Your task to perform on an android device: What is the news today? Image 0: 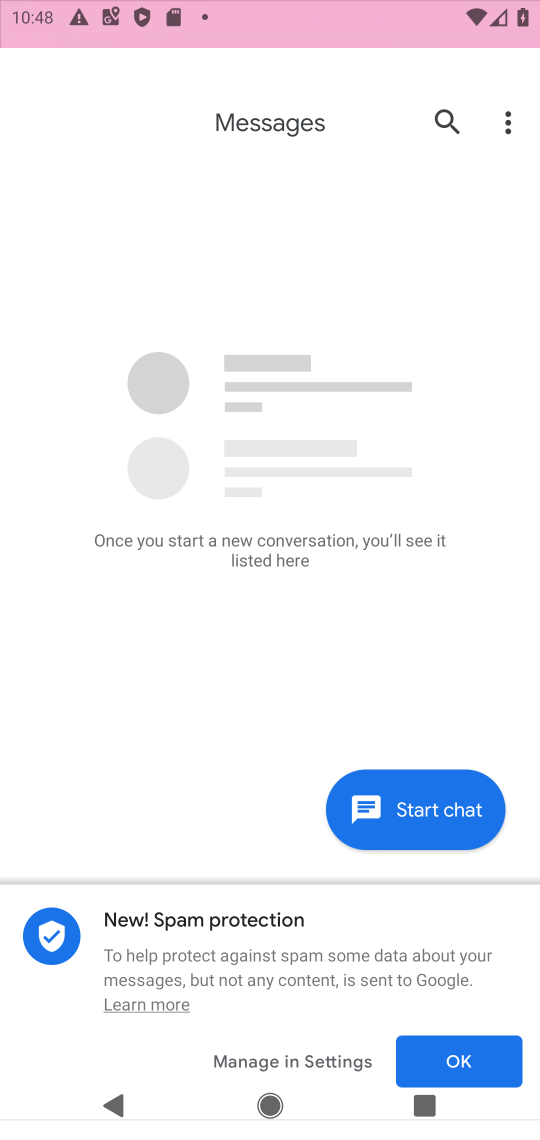
Step 0: press home button
Your task to perform on an android device: What is the news today? Image 1: 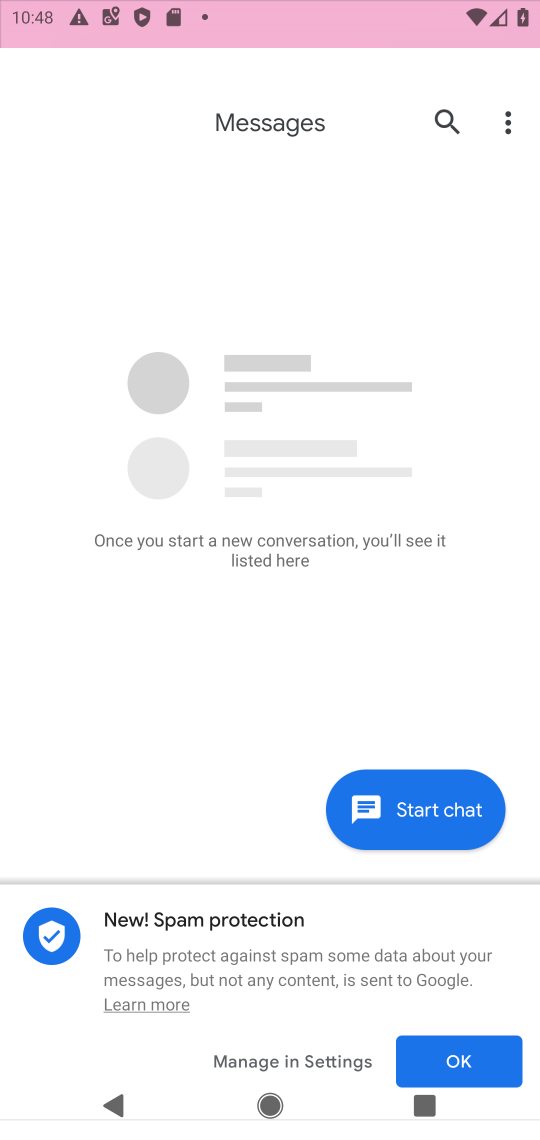
Step 1: click (388, 228)
Your task to perform on an android device: What is the news today? Image 2: 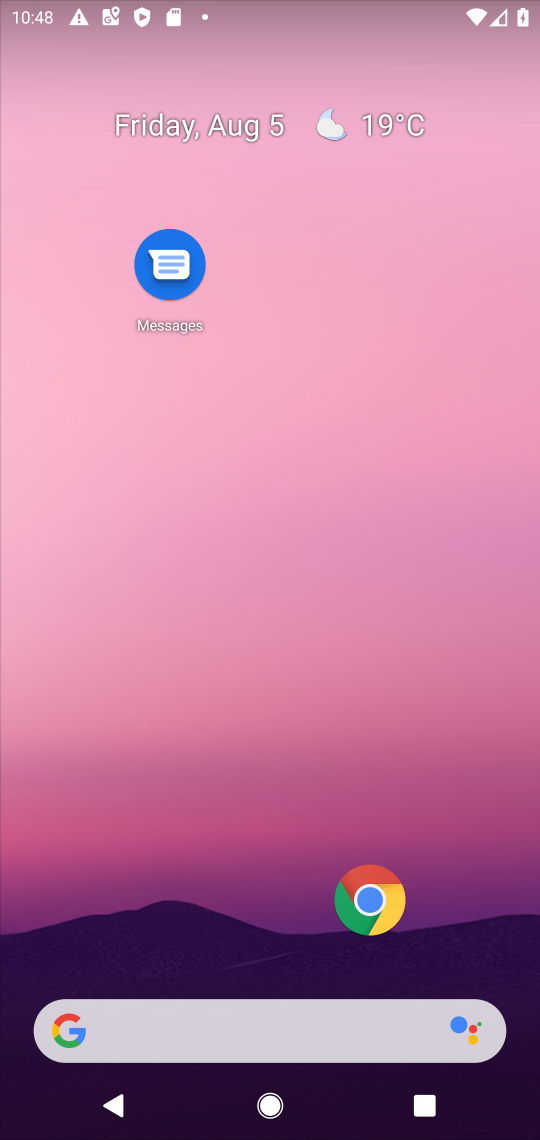
Step 2: click (345, 910)
Your task to perform on an android device: What is the news today? Image 3: 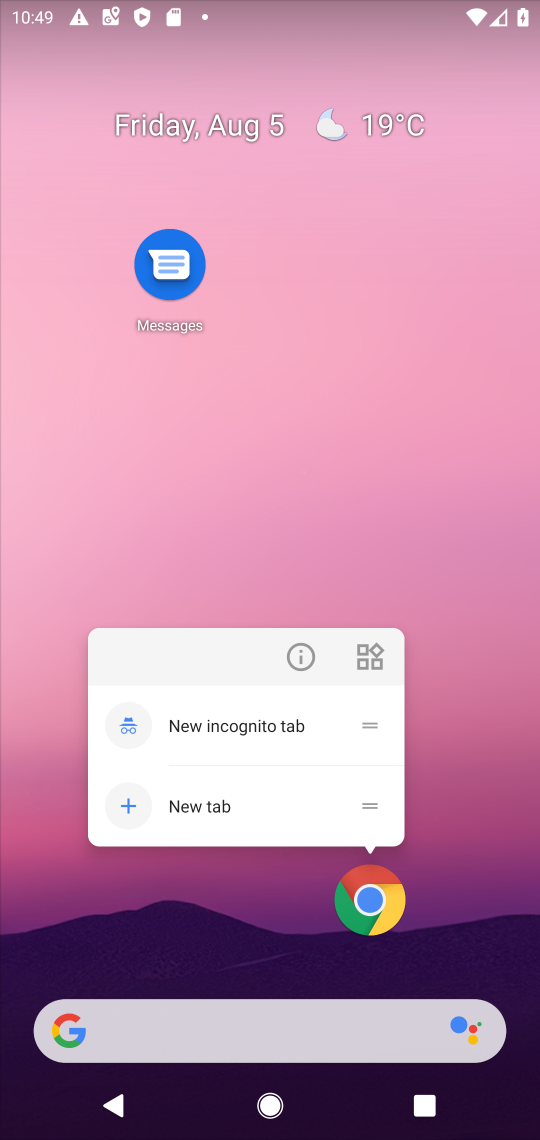
Step 3: click (368, 917)
Your task to perform on an android device: What is the news today? Image 4: 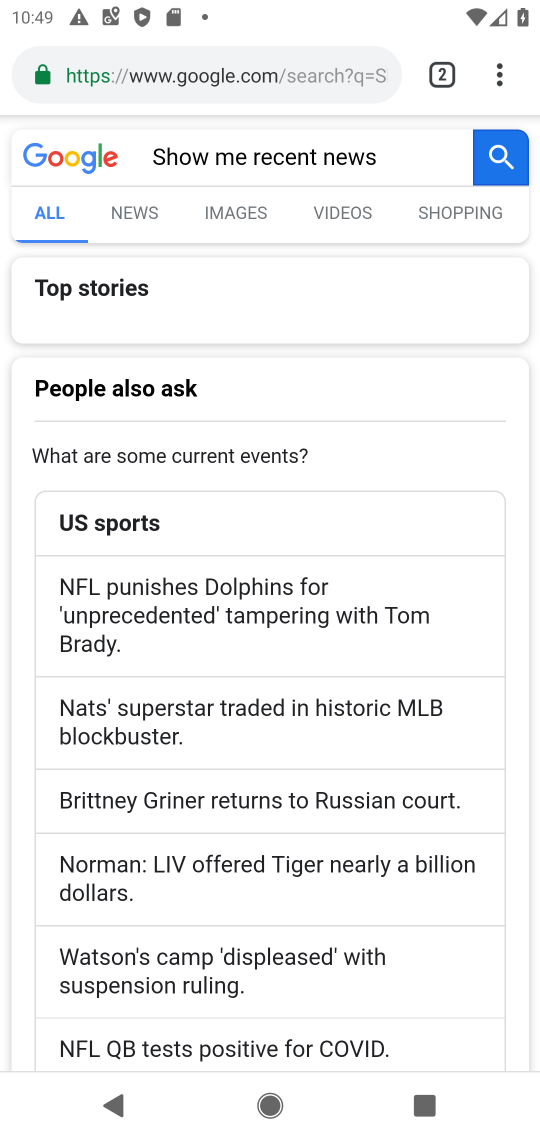
Step 4: click (259, 70)
Your task to perform on an android device: What is the news today? Image 5: 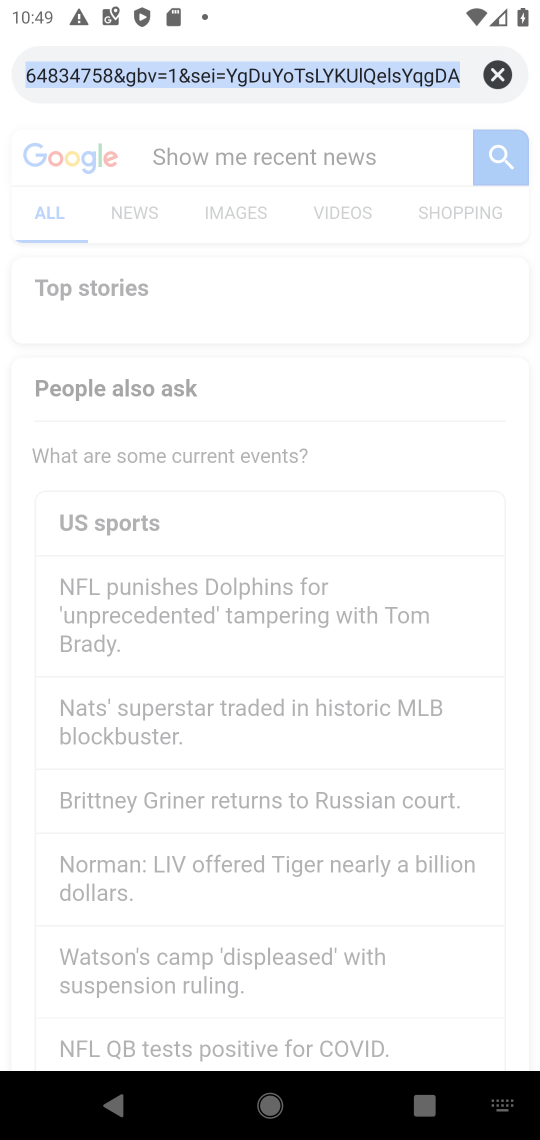
Step 5: type "What is the news today?"
Your task to perform on an android device: What is the news today? Image 6: 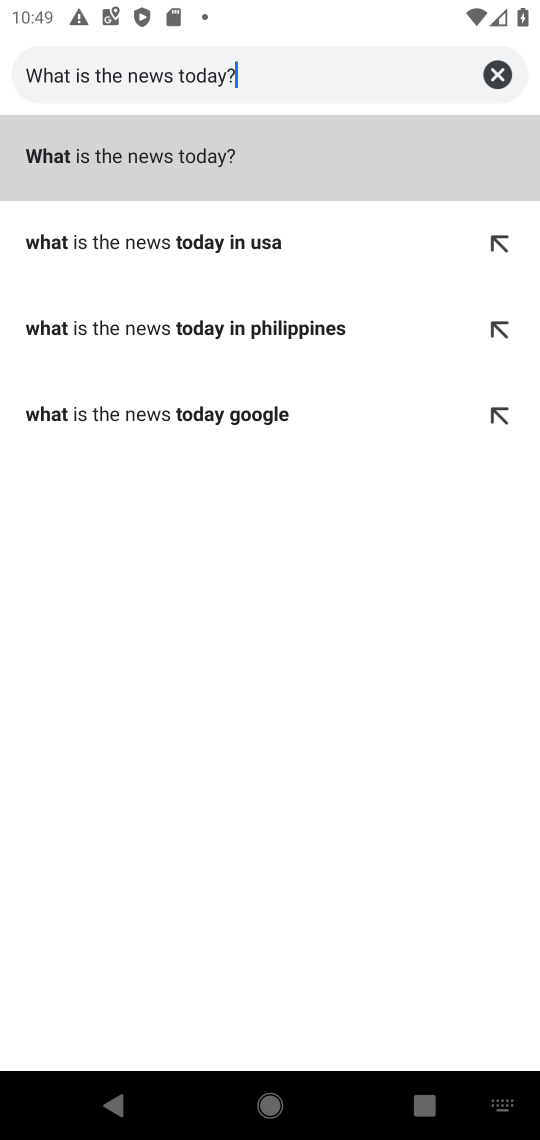
Step 6: click (139, 128)
Your task to perform on an android device: What is the news today? Image 7: 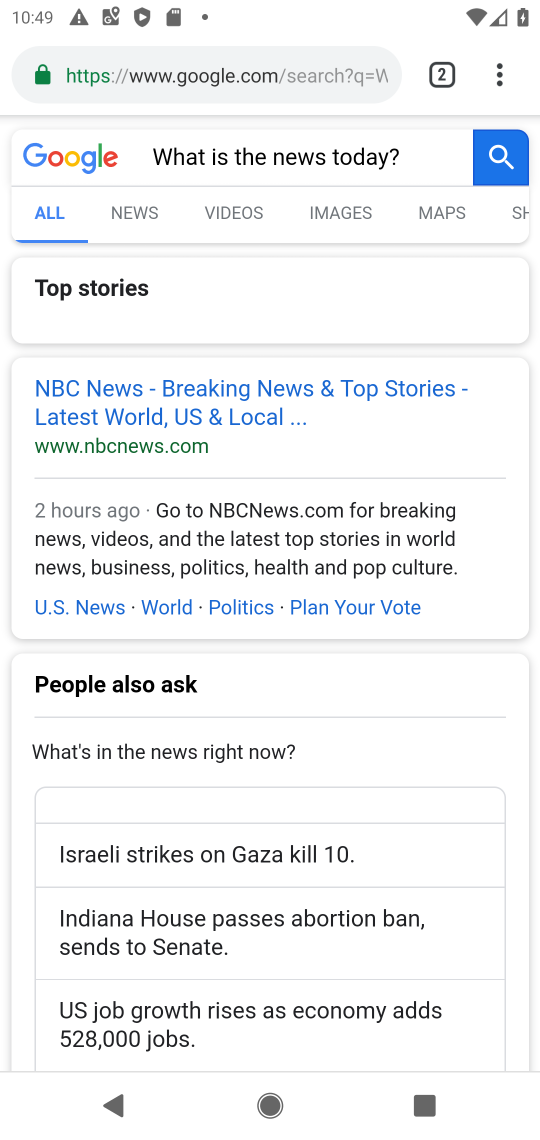
Step 7: task complete